Your task to perform on an android device: Open Chrome and go to settings Image 0: 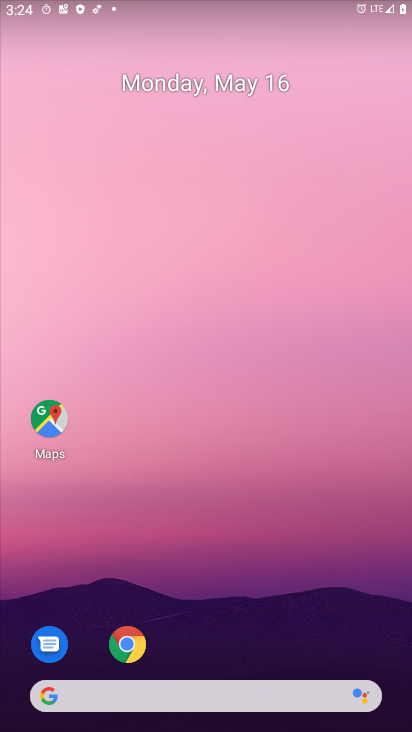
Step 0: drag from (207, 605) to (263, 196)
Your task to perform on an android device: Open Chrome and go to settings Image 1: 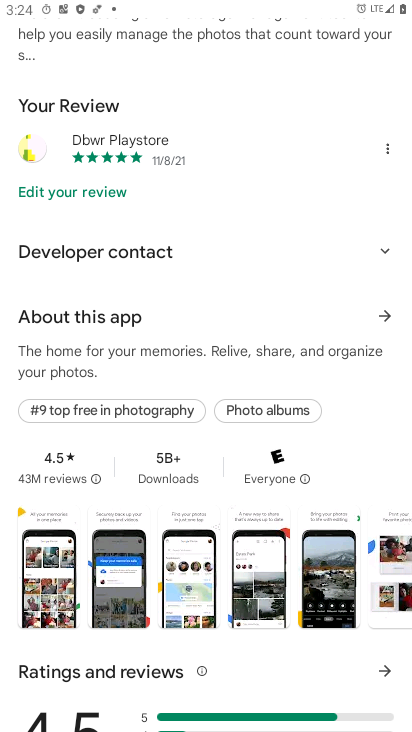
Step 1: press home button
Your task to perform on an android device: Open Chrome and go to settings Image 2: 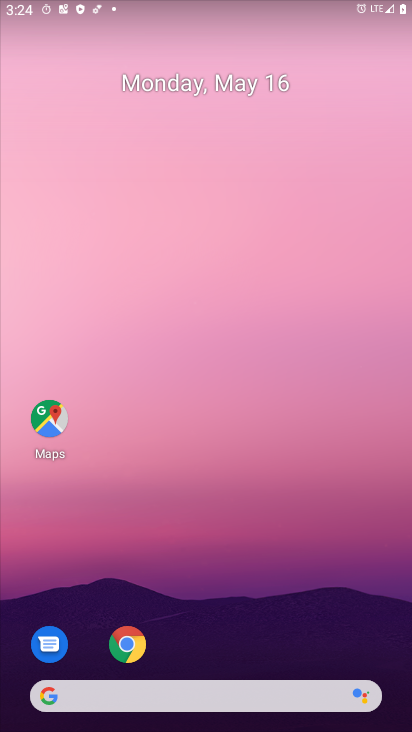
Step 2: drag from (249, 636) to (235, 217)
Your task to perform on an android device: Open Chrome and go to settings Image 3: 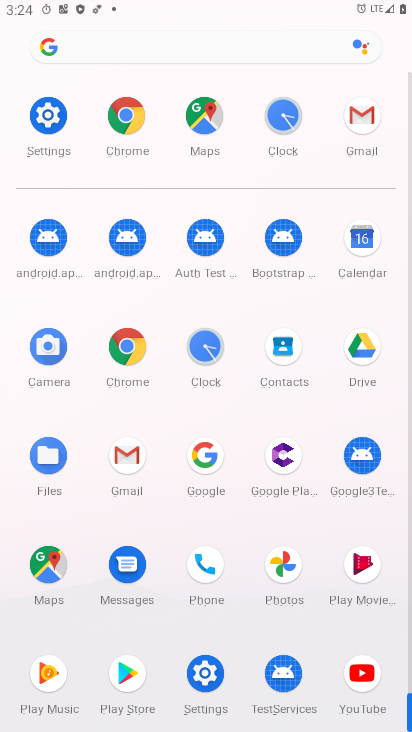
Step 3: click (131, 383)
Your task to perform on an android device: Open Chrome and go to settings Image 4: 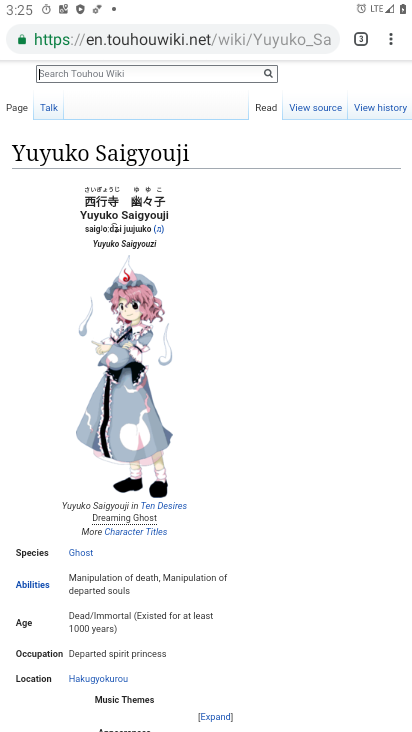
Step 4: click (394, 37)
Your task to perform on an android device: Open Chrome and go to settings Image 5: 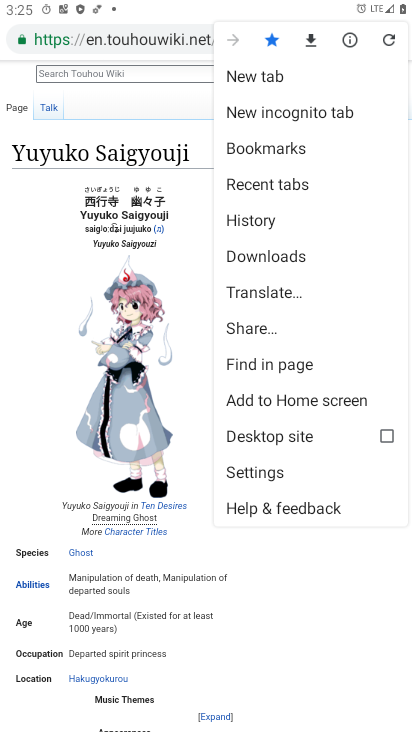
Step 5: click (264, 453)
Your task to perform on an android device: Open Chrome and go to settings Image 6: 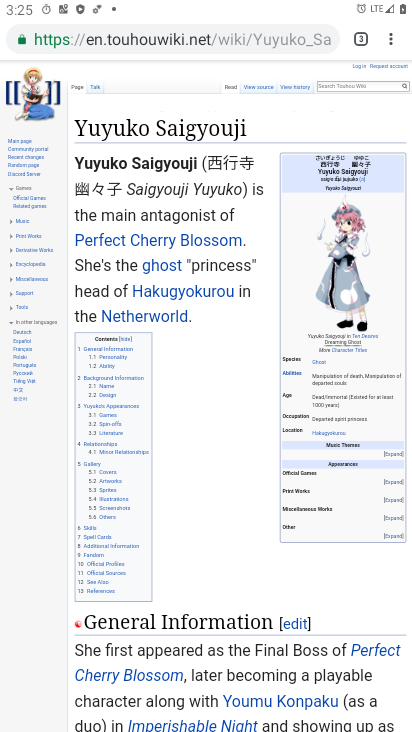
Step 6: click (391, 44)
Your task to perform on an android device: Open Chrome and go to settings Image 7: 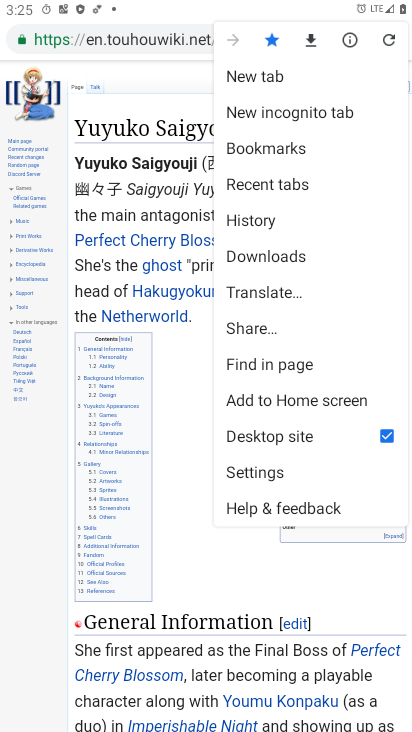
Step 7: drag from (297, 406) to (322, 222)
Your task to perform on an android device: Open Chrome and go to settings Image 8: 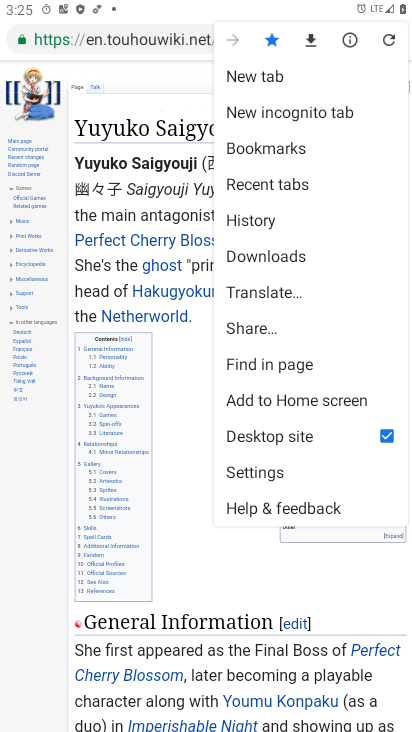
Step 8: click (281, 479)
Your task to perform on an android device: Open Chrome and go to settings Image 9: 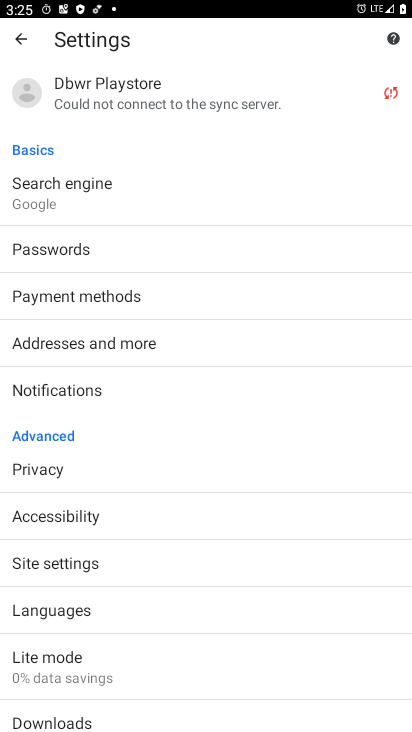
Step 9: task complete